Your task to perform on an android device: move an email to a new category in the gmail app Image 0: 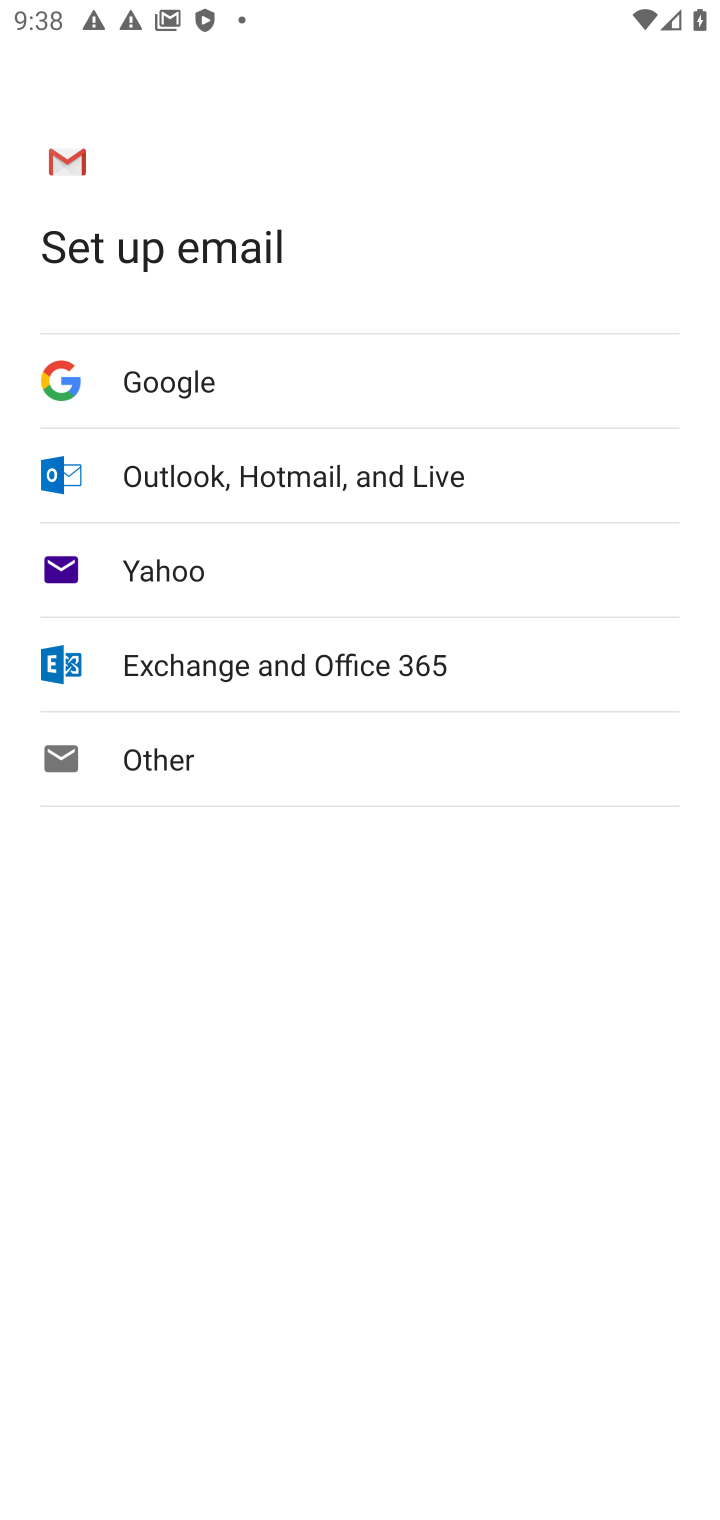
Step 0: press home button
Your task to perform on an android device: move an email to a new category in the gmail app Image 1: 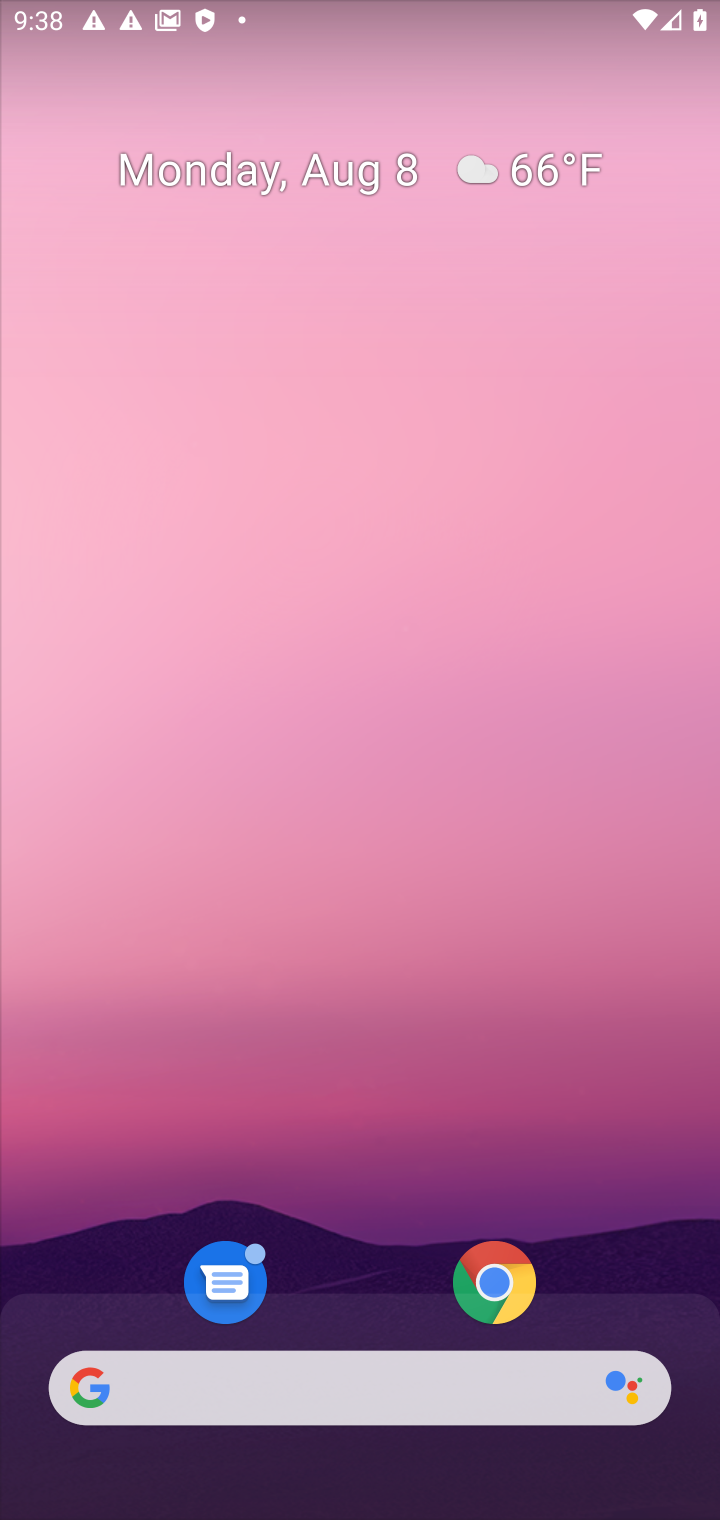
Step 1: drag from (362, 1230) to (453, 148)
Your task to perform on an android device: move an email to a new category in the gmail app Image 2: 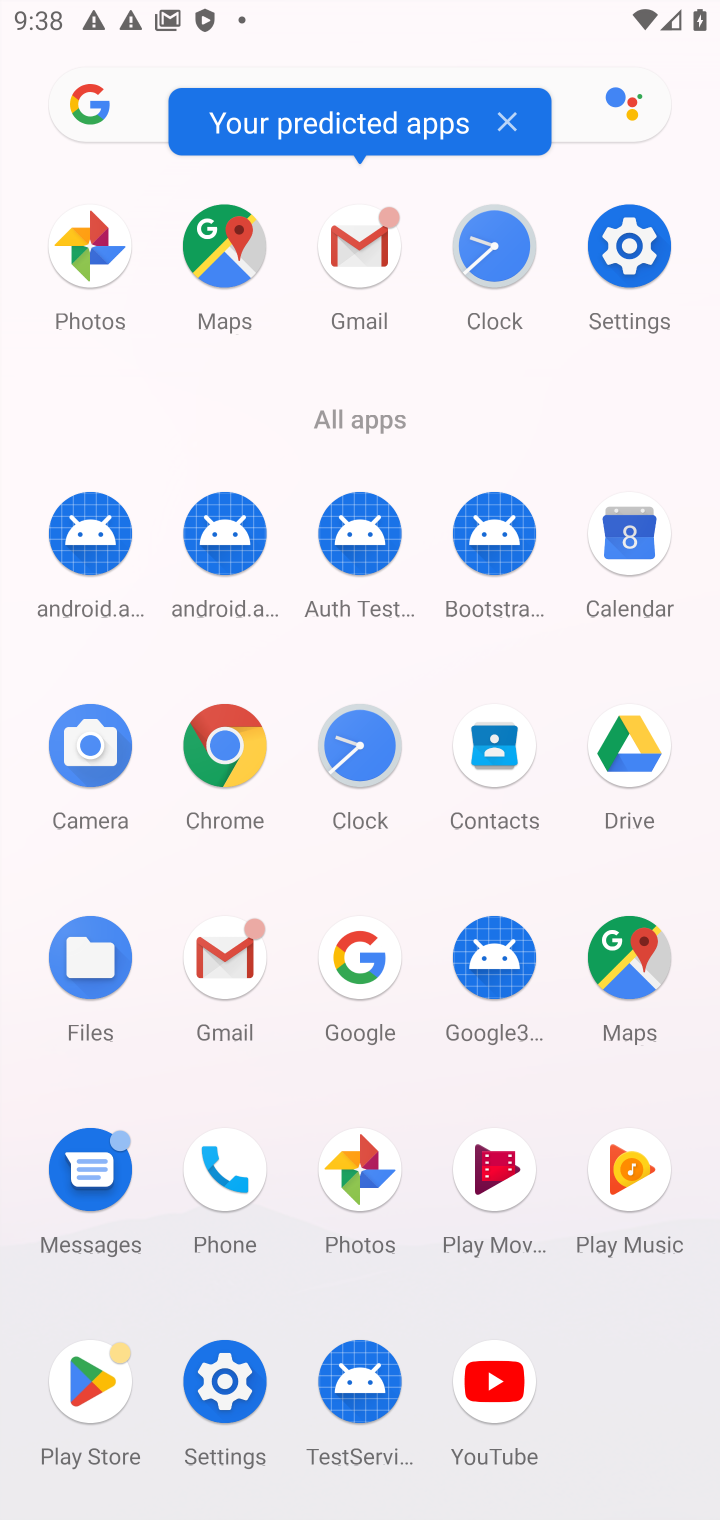
Step 2: click (354, 277)
Your task to perform on an android device: move an email to a new category in the gmail app Image 3: 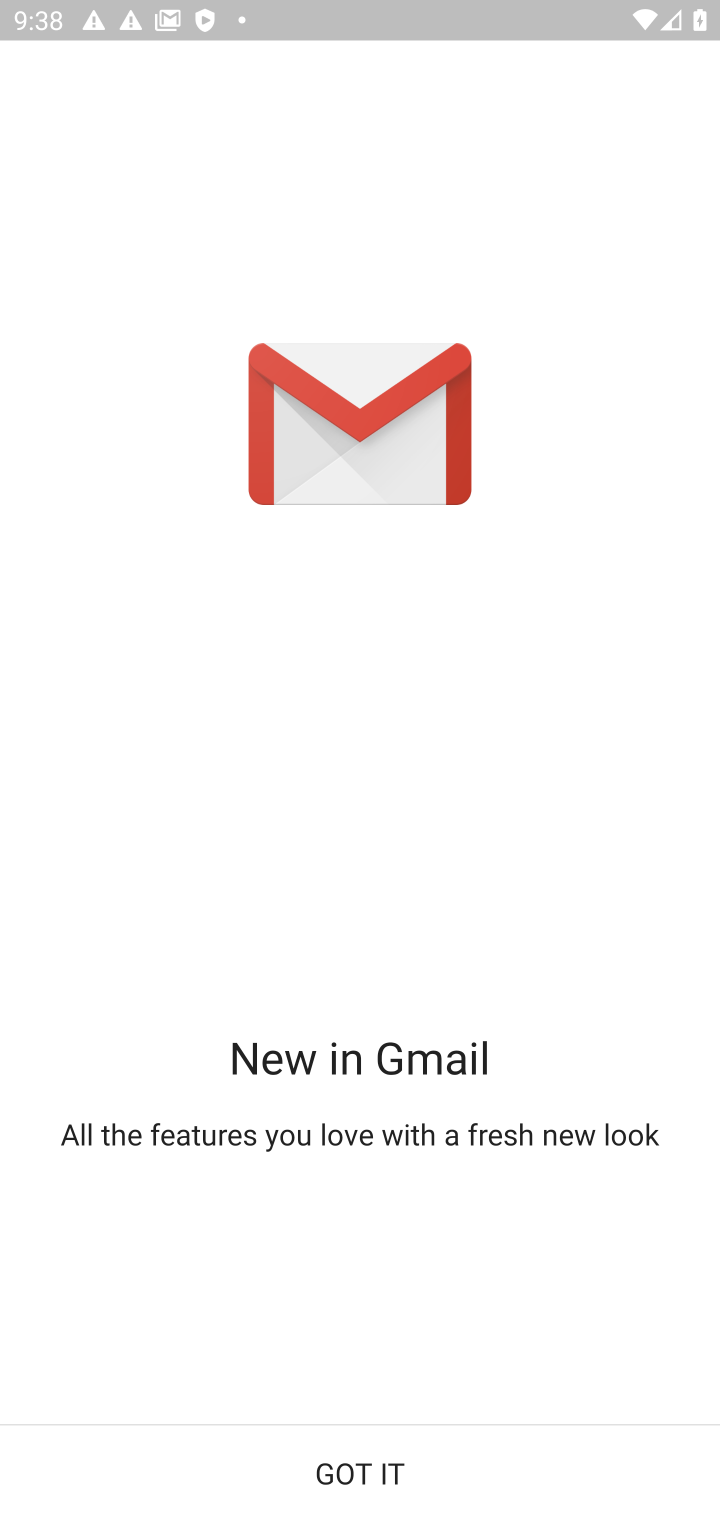
Step 3: click (427, 1482)
Your task to perform on an android device: move an email to a new category in the gmail app Image 4: 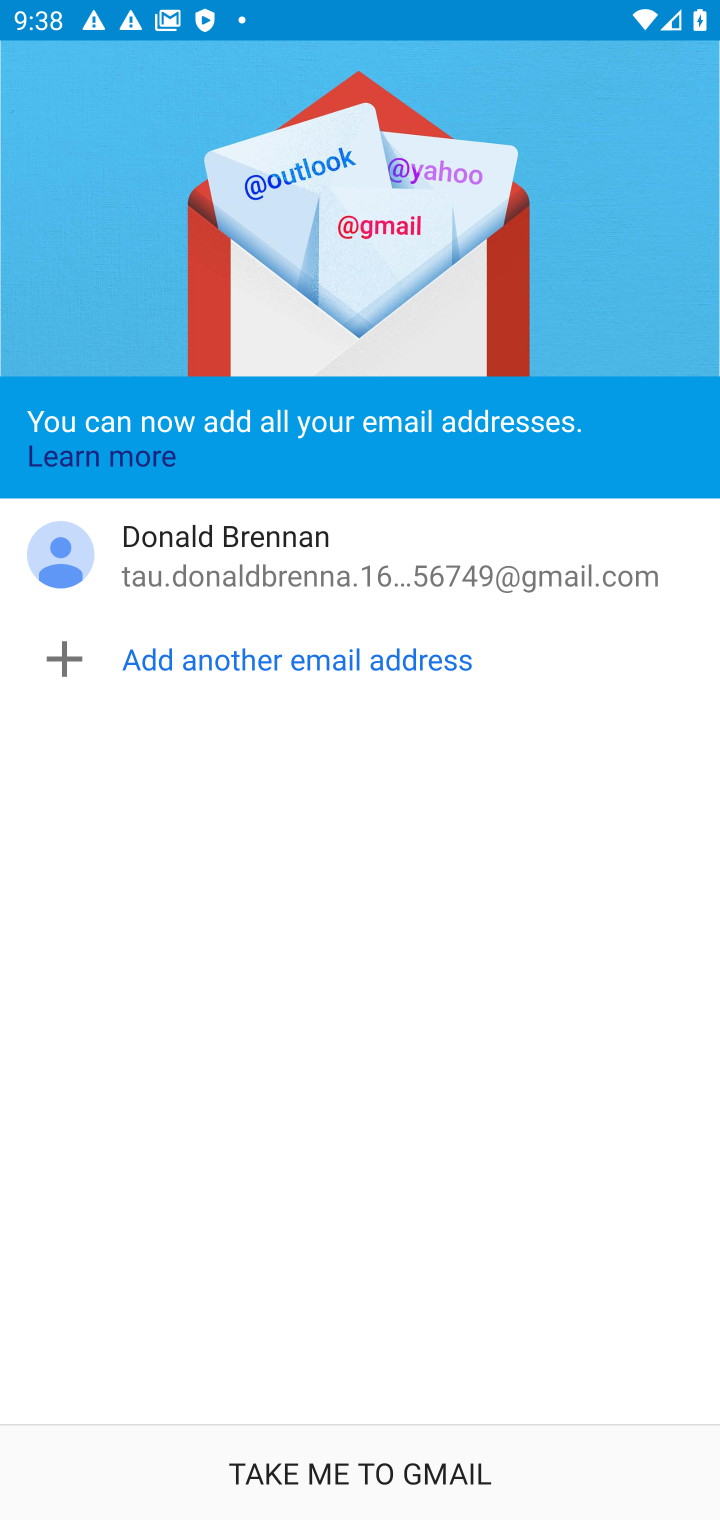
Step 4: click (427, 1482)
Your task to perform on an android device: move an email to a new category in the gmail app Image 5: 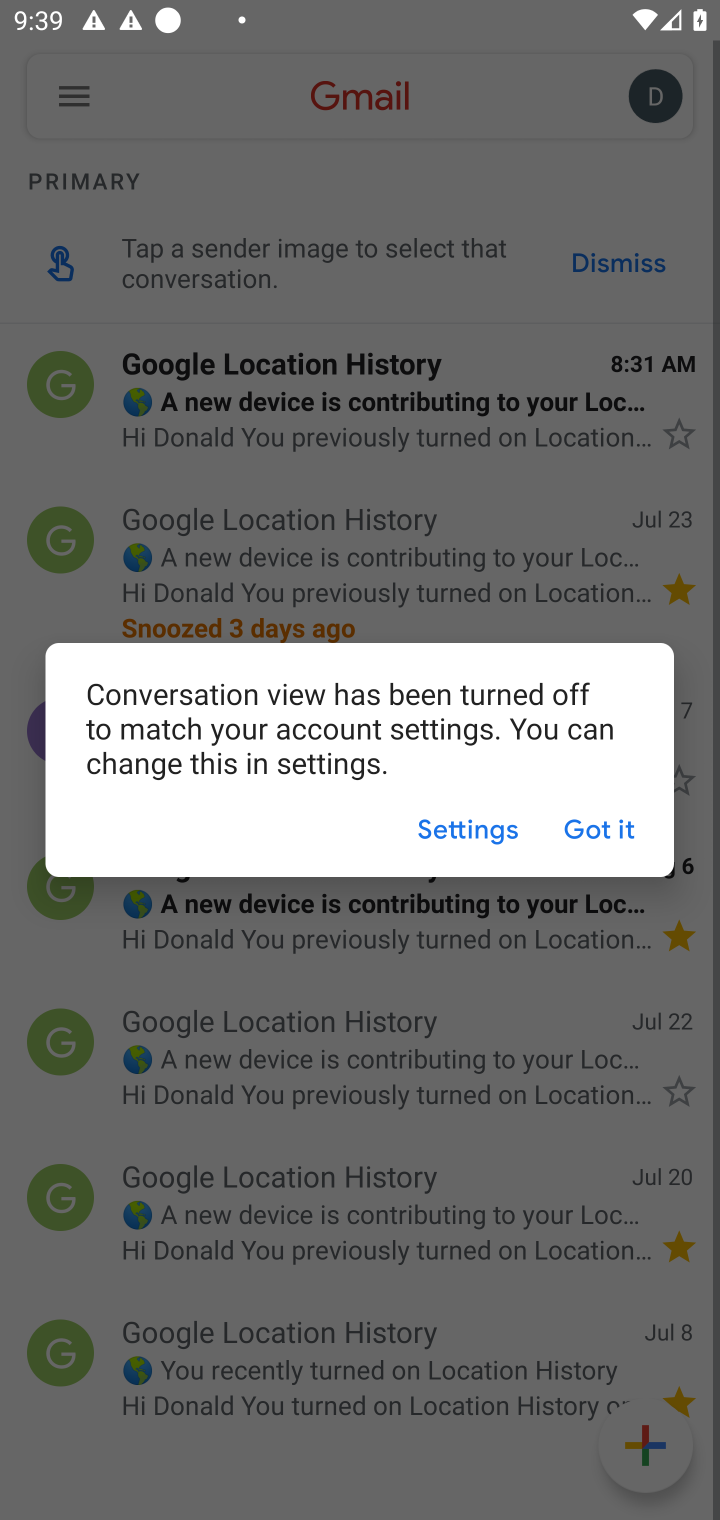
Step 5: click (623, 845)
Your task to perform on an android device: move an email to a new category in the gmail app Image 6: 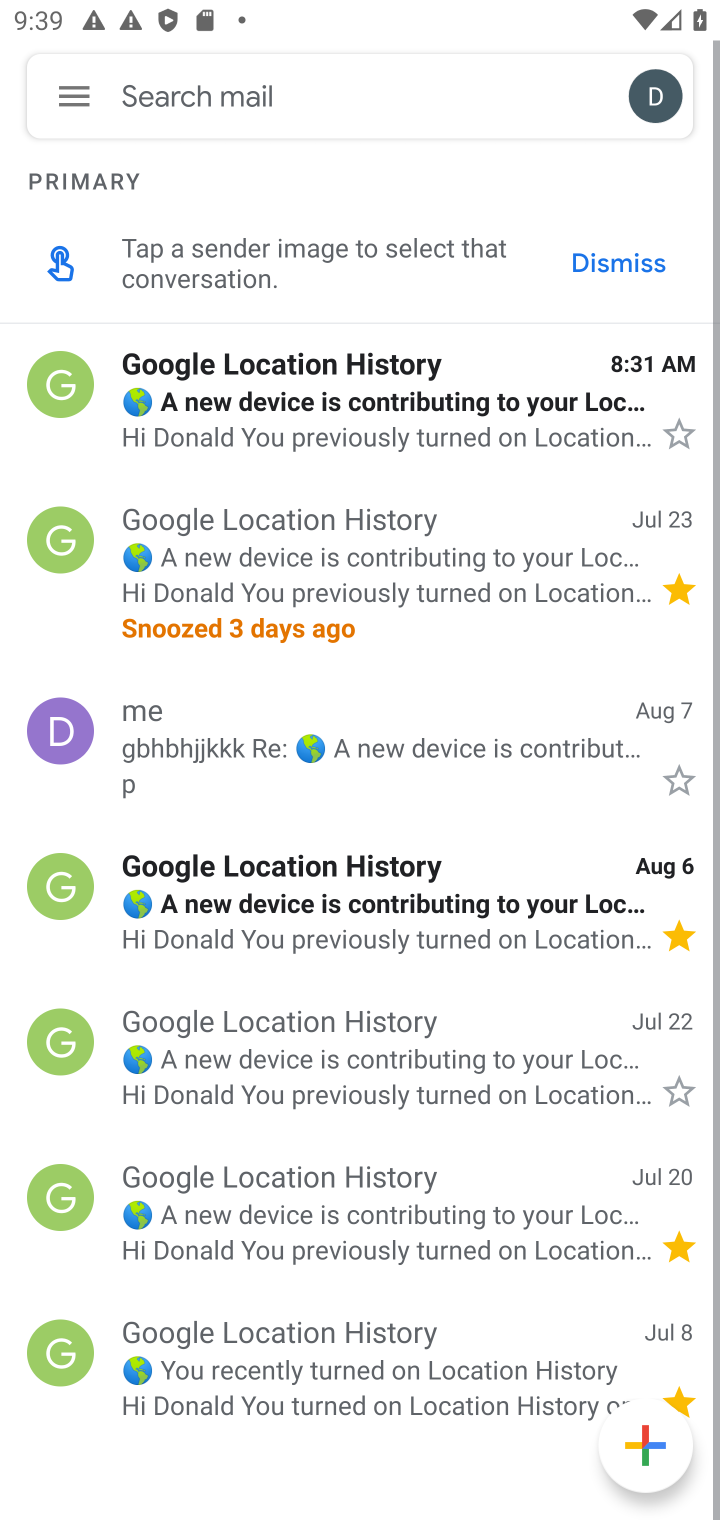
Step 6: click (48, 98)
Your task to perform on an android device: move an email to a new category in the gmail app Image 7: 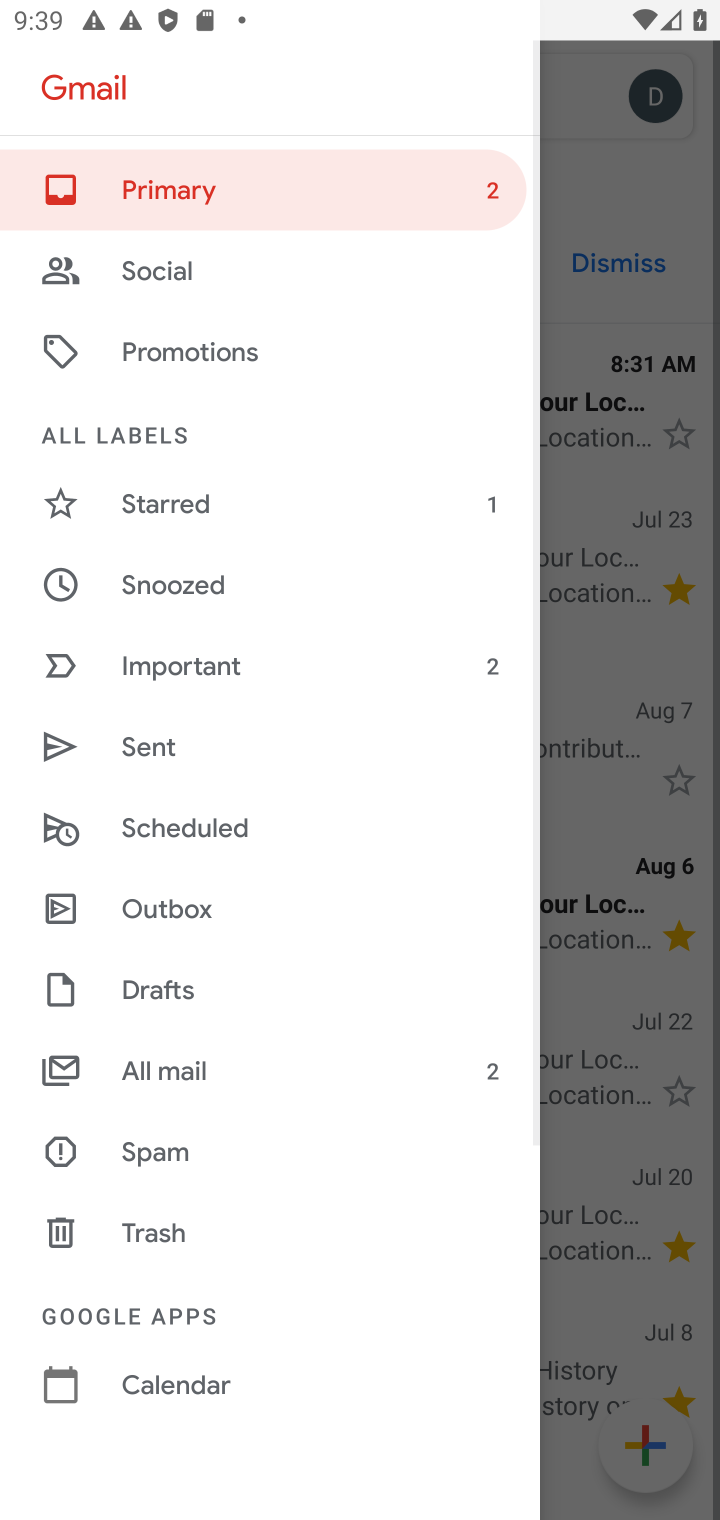
Step 7: click (251, 1077)
Your task to perform on an android device: move an email to a new category in the gmail app Image 8: 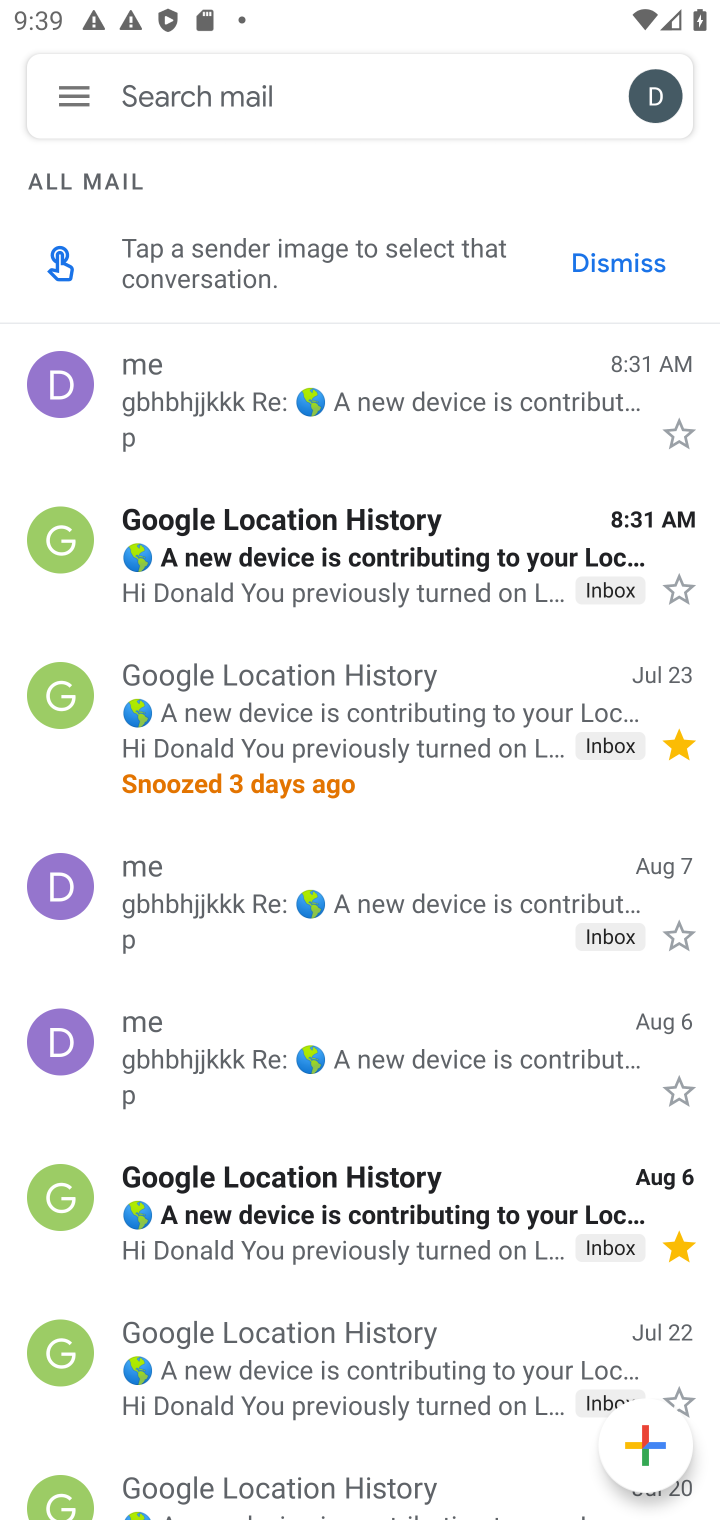
Step 8: click (370, 412)
Your task to perform on an android device: move an email to a new category in the gmail app Image 9: 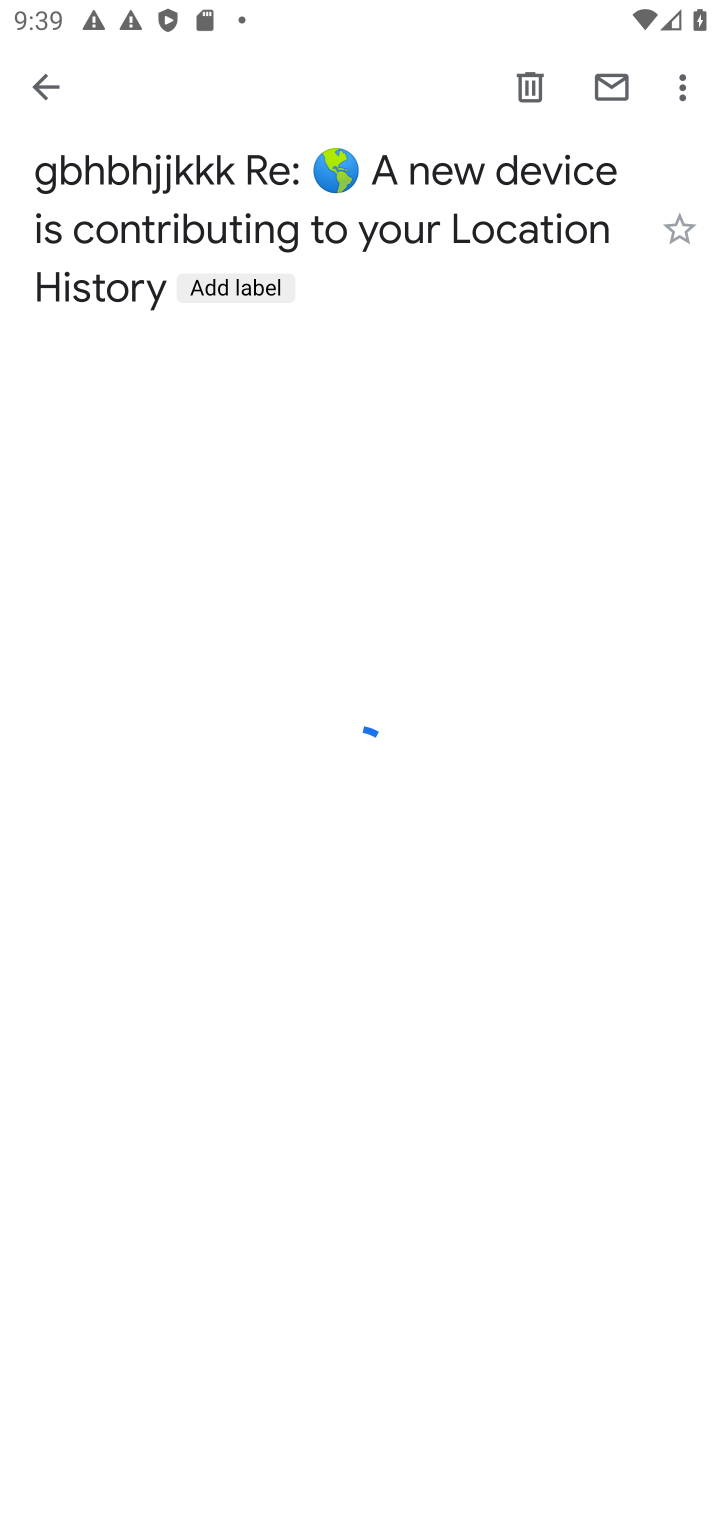
Step 9: click (687, 78)
Your task to perform on an android device: move an email to a new category in the gmail app Image 10: 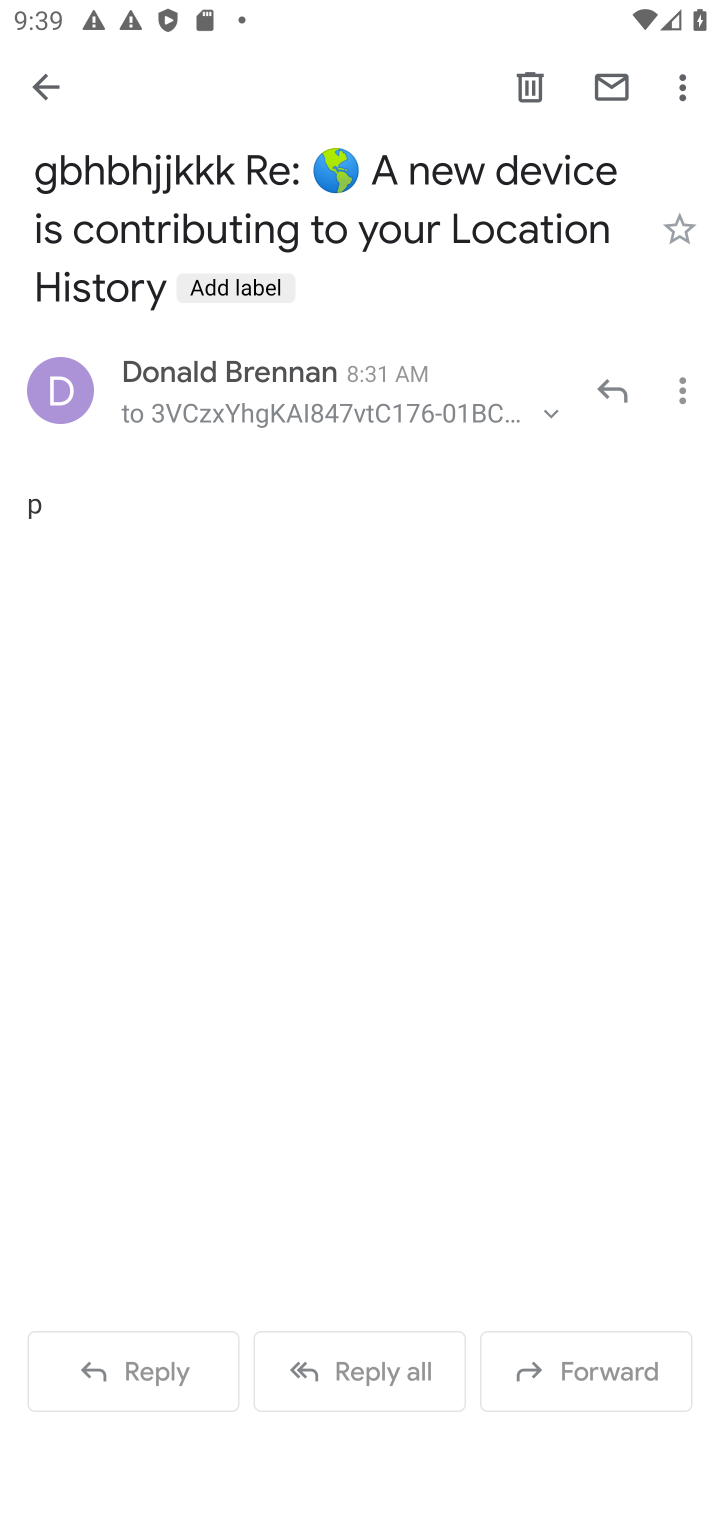
Step 10: click (665, 94)
Your task to perform on an android device: move an email to a new category in the gmail app Image 11: 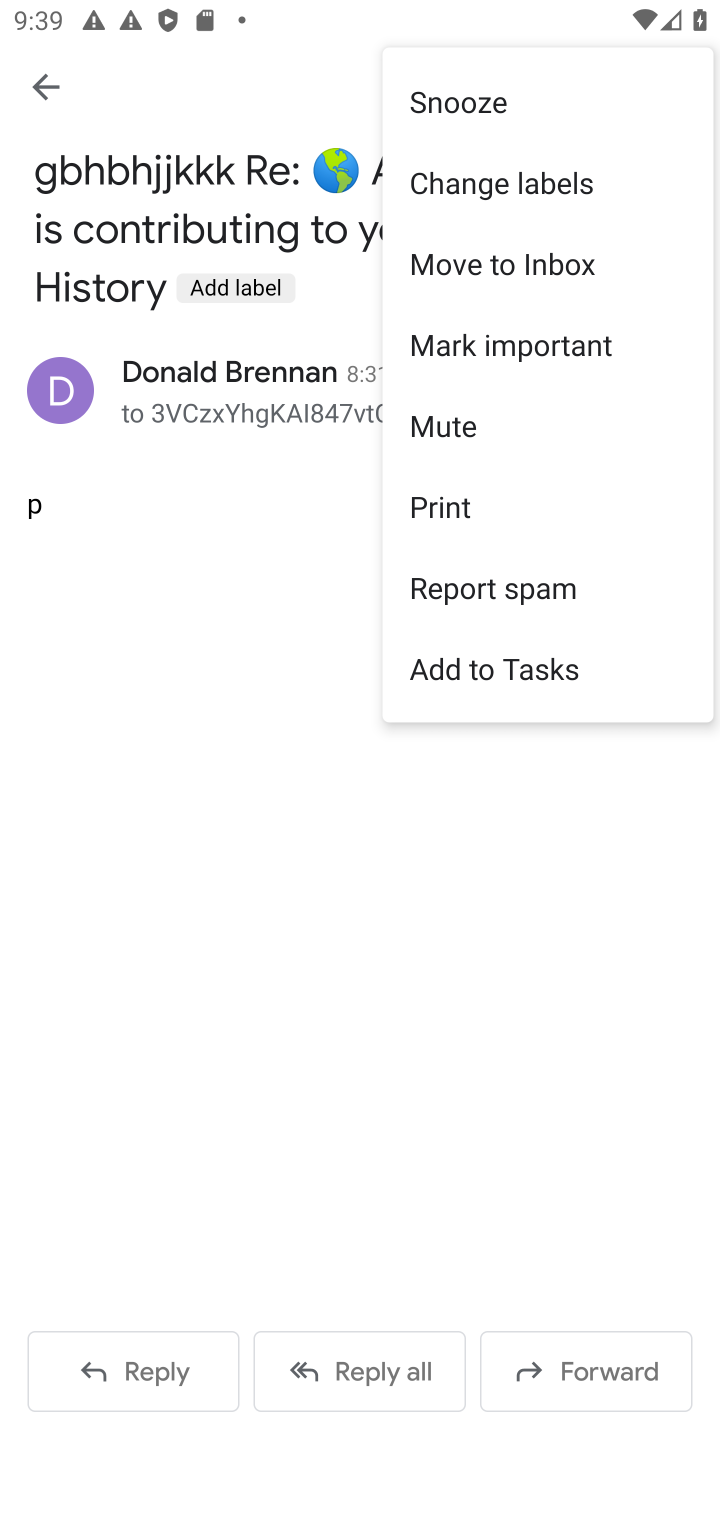
Step 11: click (481, 349)
Your task to perform on an android device: move an email to a new category in the gmail app Image 12: 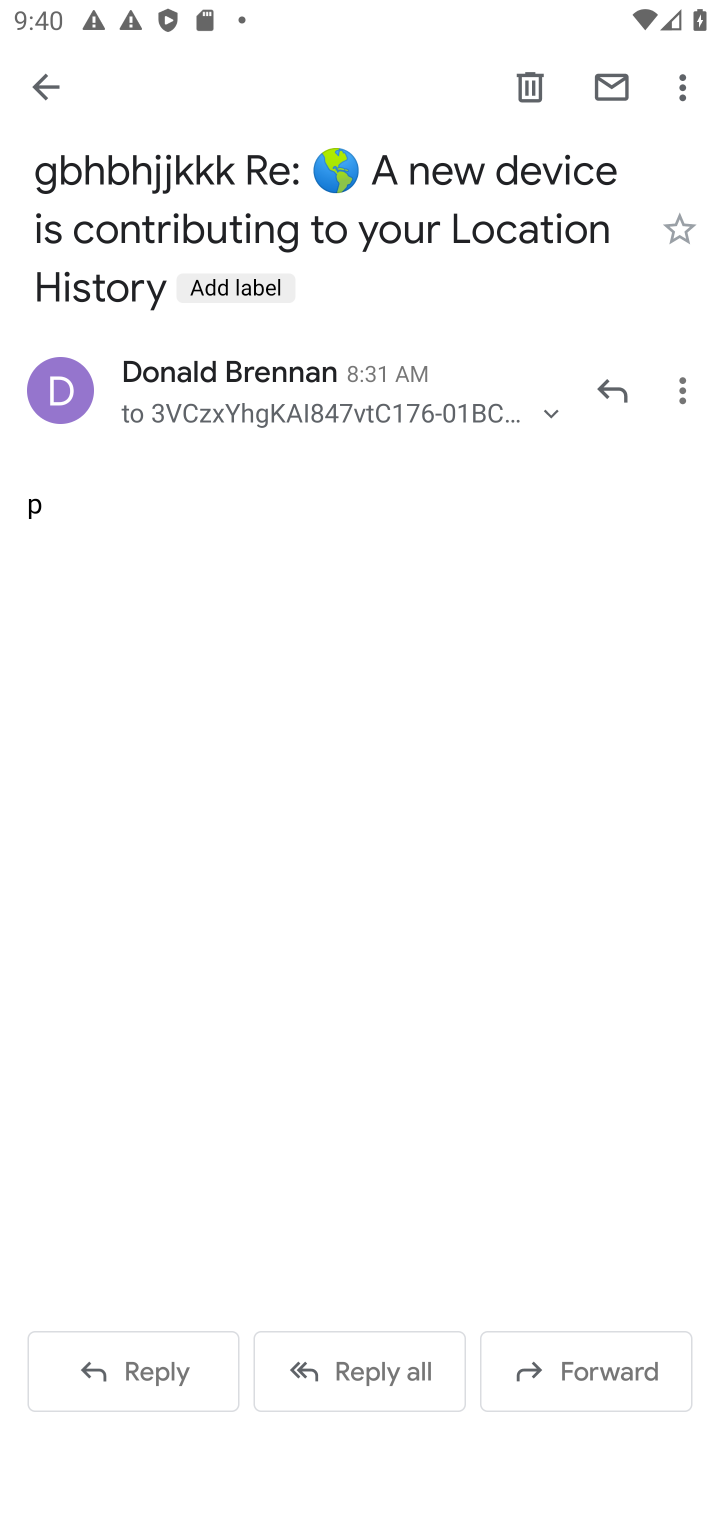
Step 12: task complete